Your task to perform on an android device: Open Amazon Image 0: 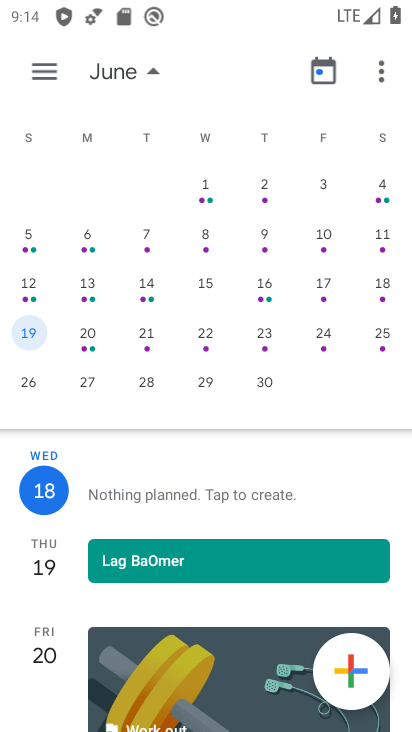
Step 0: press home button
Your task to perform on an android device: Open Amazon Image 1: 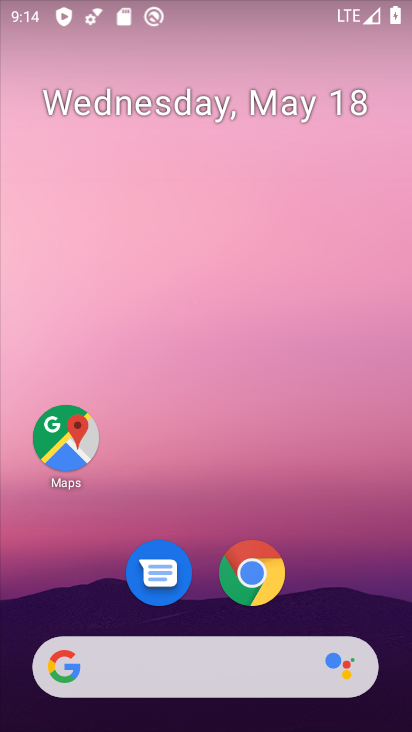
Step 1: click (171, 673)
Your task to perform on an android device: Open Amazon Image 2: 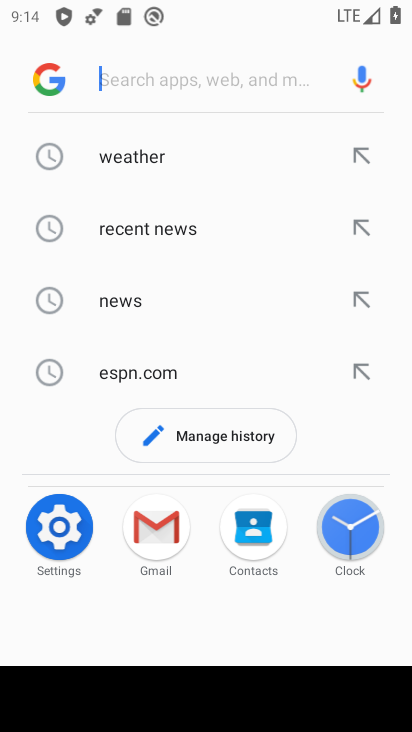
Step 2: type "amazon"
Your task to perform on an android device: Open Amazon Image 3: 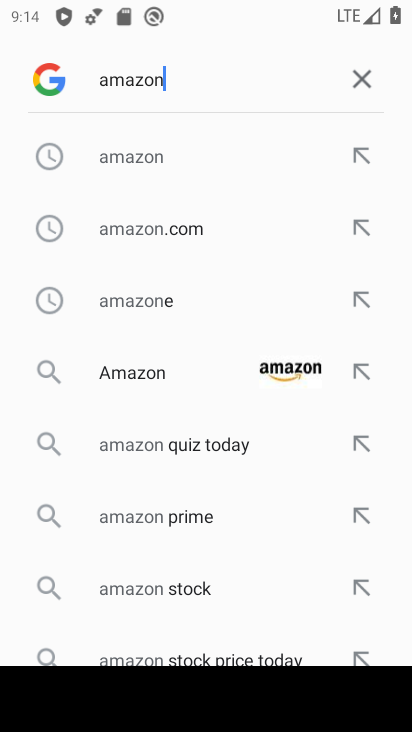
Step 3: click (295, 371)
Your task to perform on an android device: Open Amazon Image 4: 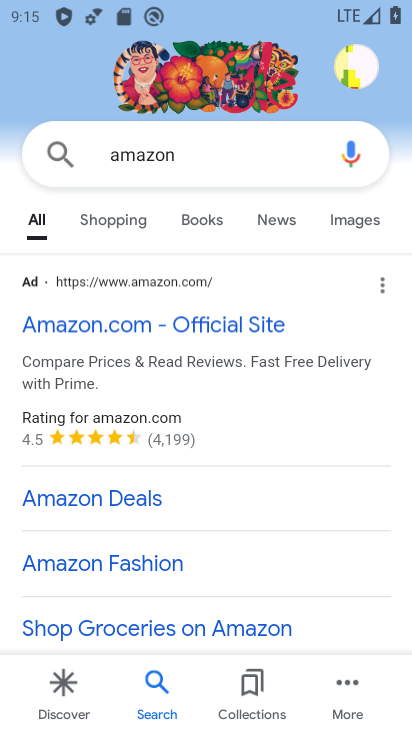
Step 4: click (166, 276)
Your task to perform on an android device: Open Amazon Image 5: 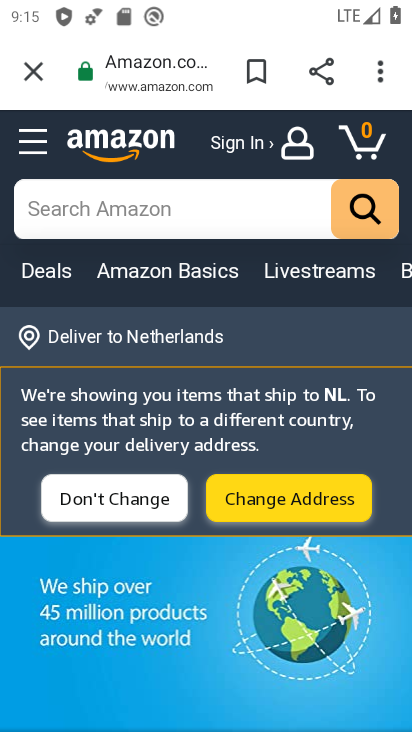
Step 5: task complete